Your task to perform on an android device: turn vacation reply on in the gmail app Image 0: 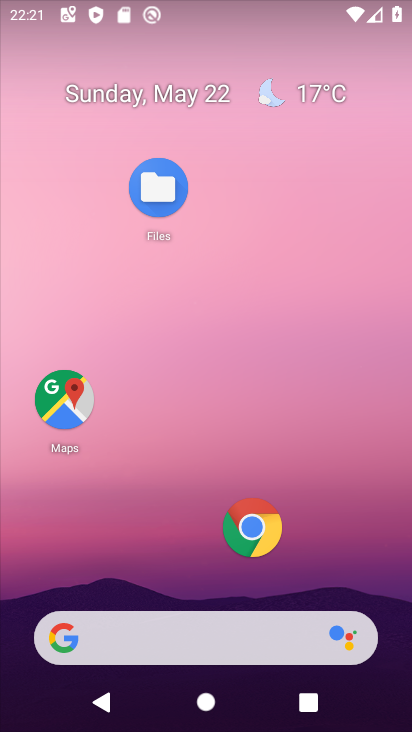
Step 0: drag from (173, 554) to (173, 1)
Your task to perform on an android device: turn vacation reply on in the gmail app Image 1: 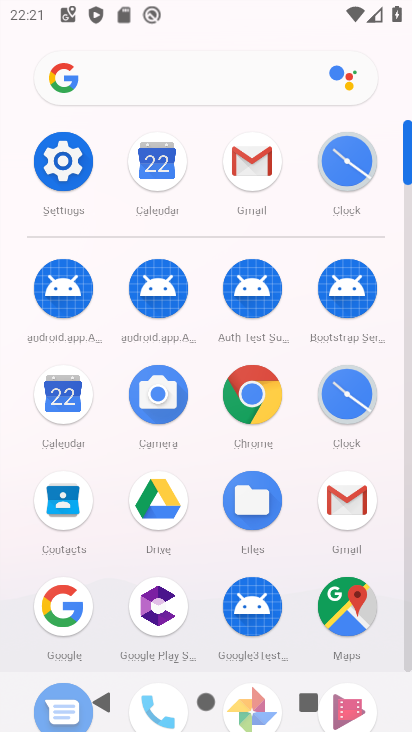
Step 1: click (257, 163)
Your task to perform on an android device: turn vacation reply on in the gmail app Image 2: 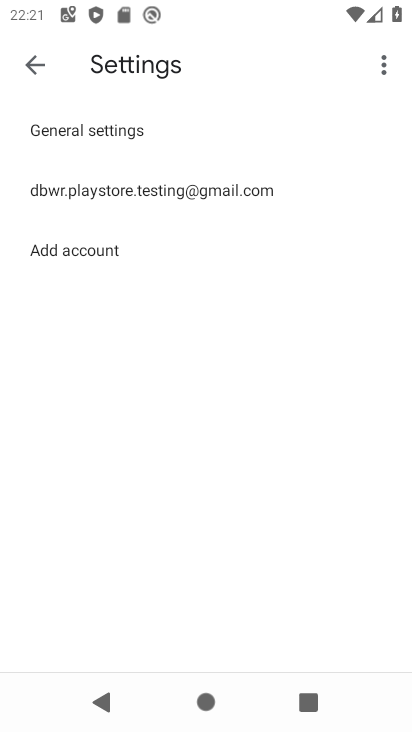
Step 2: click (101, 187)
Your task to perform on an android device: turn vacation reply on in the gmail app Image 3: 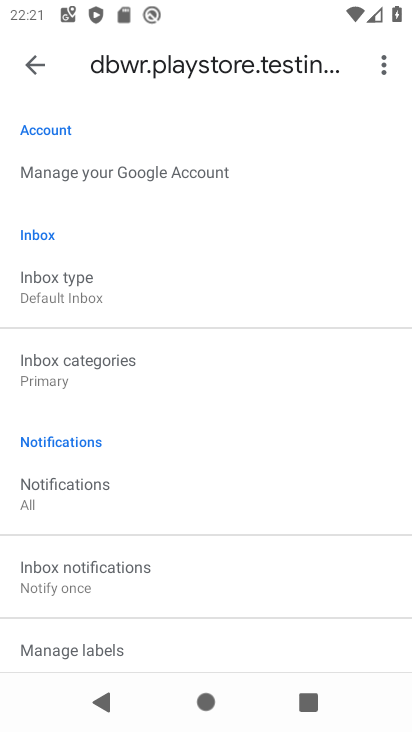
Step 3: drag from (233, 567) to (189, 35)
Your task to perform on an android device: turn vacation reply on in the gmail app Image 4: 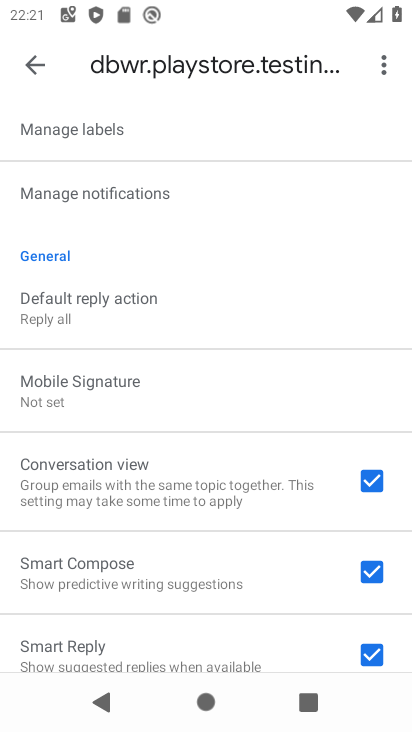
Step 4: drag from (224, 590) to (164, 79)
Your task to perform on an android device: turn vacation reply on in the gmail app Image 5: 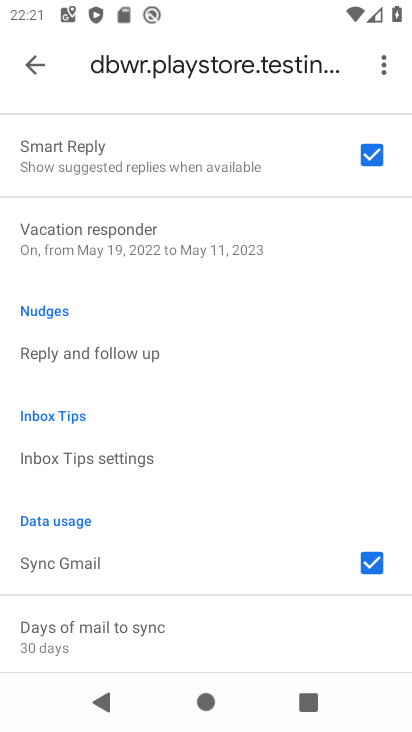
Step 5: click (87, 230)
Your task to perform on an android device: turn vacation reply on in the gmail app Image 6: 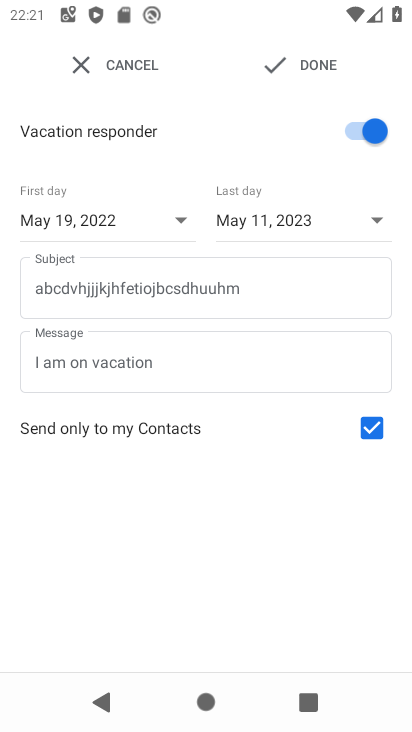
Step 6: click (276, 63)
Your task to perform on an android device: turn vacation reply on in the gmail app Image 7: 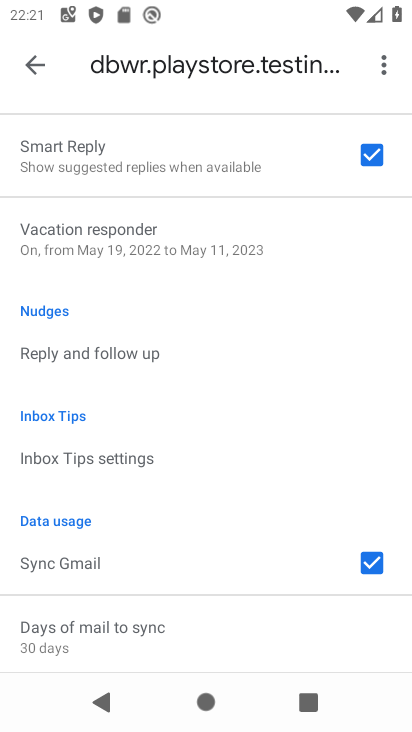
Step 7: task complete